Your task to perform on an android device: Go to Google Image 0: 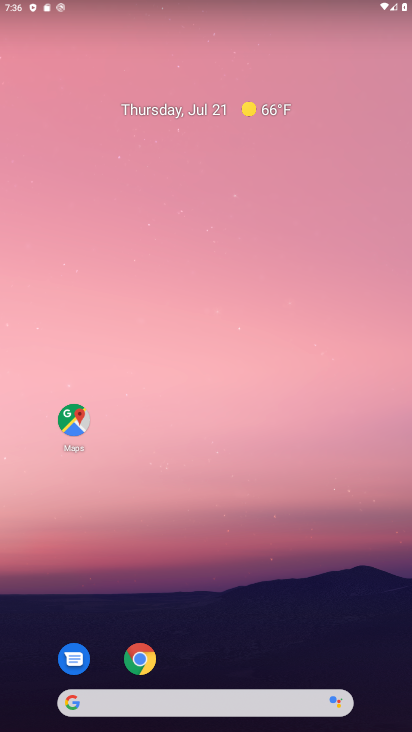
Step 0: drag from (175, 598) to (235, 168)
Your task to perform on an android device: Go to Google Image 1: 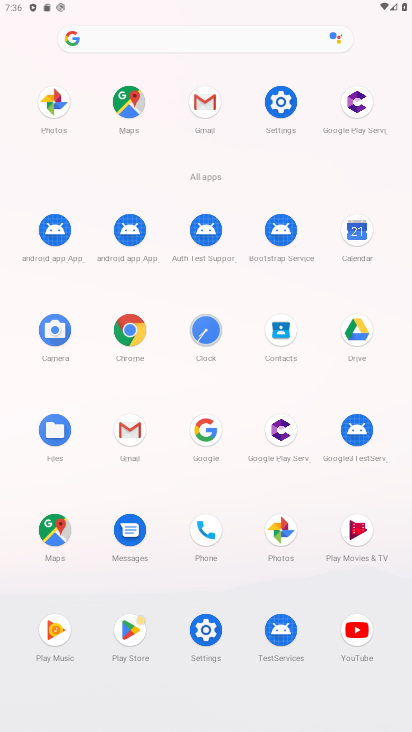
Step 1: click (195, 428)
Your task to perform on an android device: Go to Google Image 2: 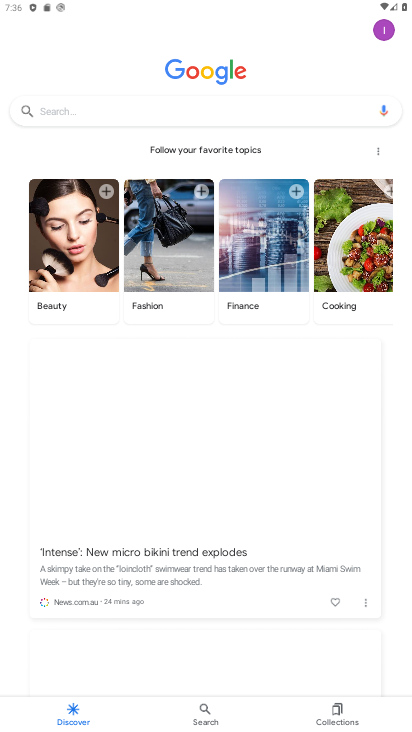
Step 2: task complete